Your task to perform on an android device: change your default location settings in chrome Image 0: 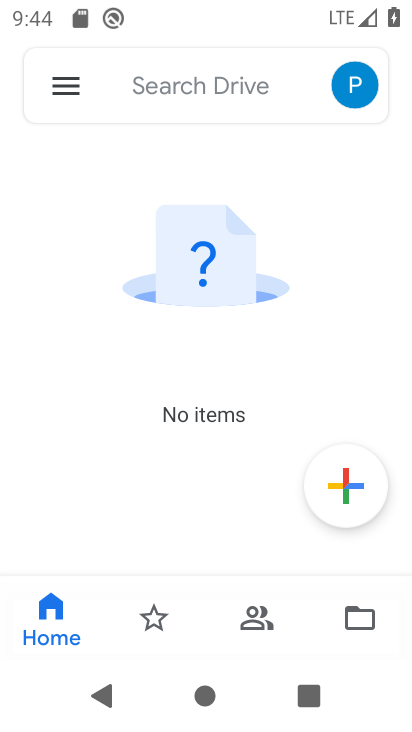
Step 0: press home button
Your task to perform on an android device: change your default location settings in chrome Image 1: 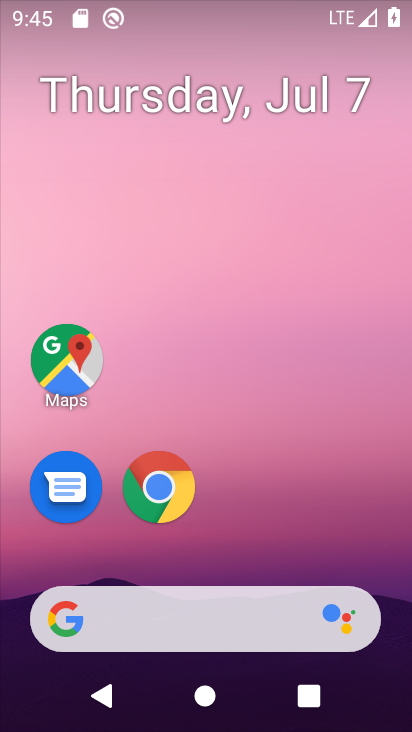
Step 1: drag from (327, 527) to (335, 159)
Your task to perform on an android device: change your default location settings in chrome Image 2: 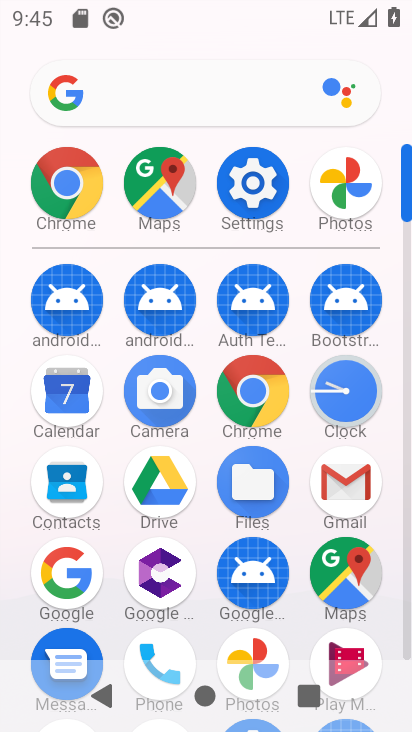
Step 2: click (259, 396)
Your task to perform on an android device: change your default location settings in chrome Image 3: 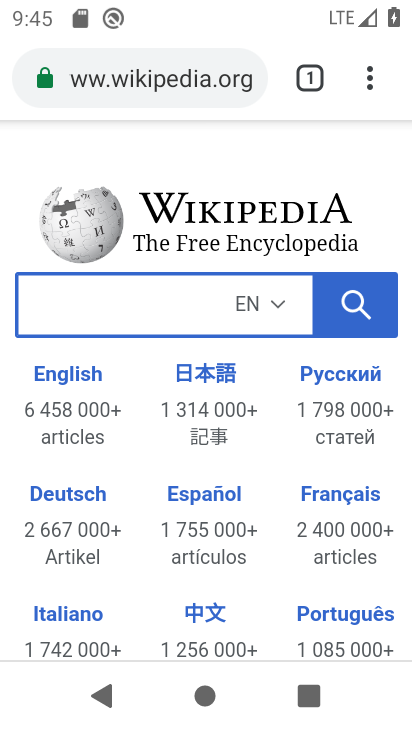
Step 3: click (369, 85)
Your task to perform on an android device: change your default location settings in chrome Image 4: 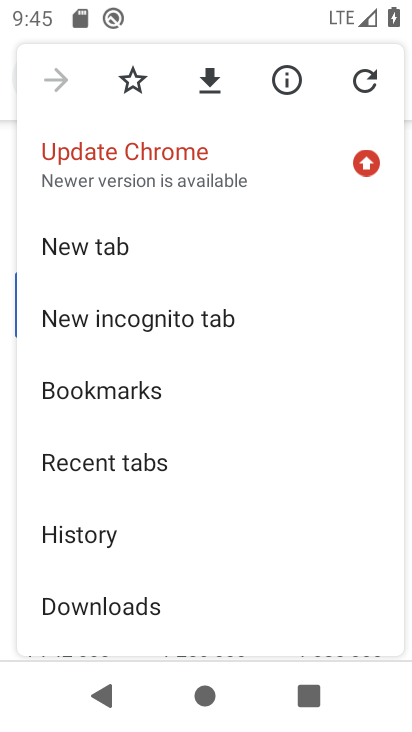
Step 4: drag from (302, 445) to (311, 304)
Your task to perform on an android device: change your default location settings in chrome Image 5: 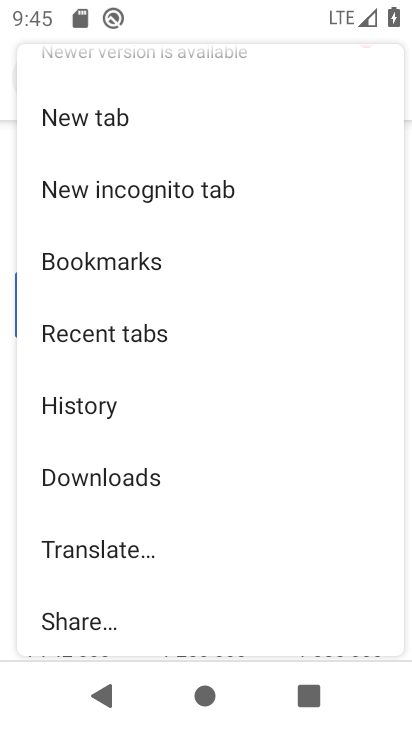
Step 5: drag from (317, 472) to (321, 345)
Your task to perform on an android device: change your default location settings in chrome Image 6: 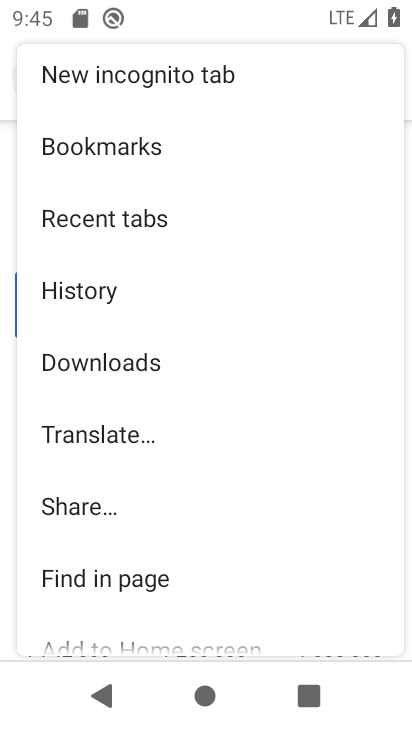
Step 6: drag from (314, 508) to (316, 361)
Your task to perform on an android device: change your default location settings in chrome Image 7: 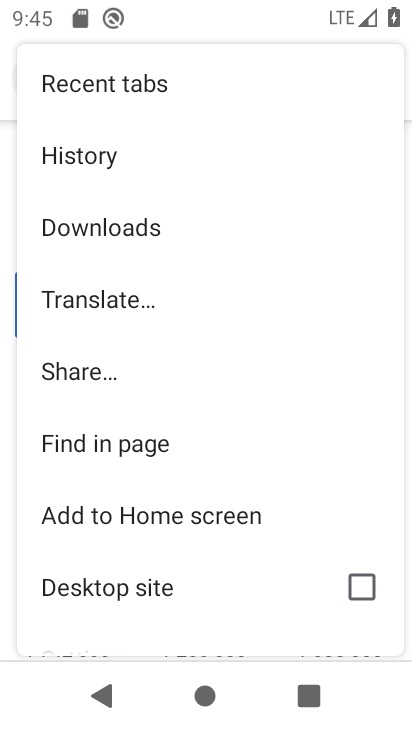
Step 7: drag from (278, 540) to (290, 393)
Your task to perform on an android device: change your default location settings in chrome Image 8: 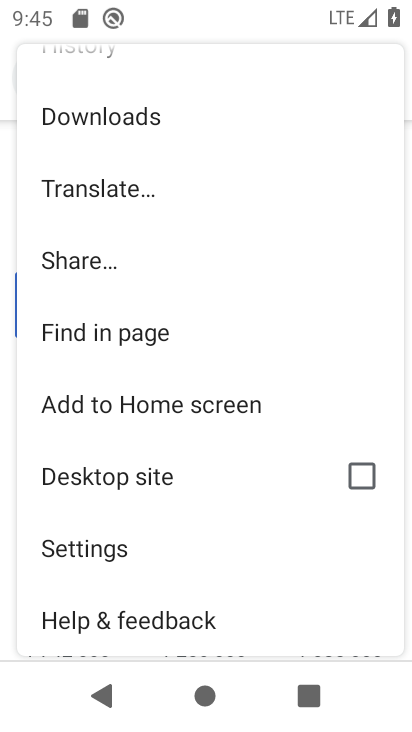
Step 8: click (216, 549)
Your task to perform on an android device: change your default location settings in chrome Image 9: 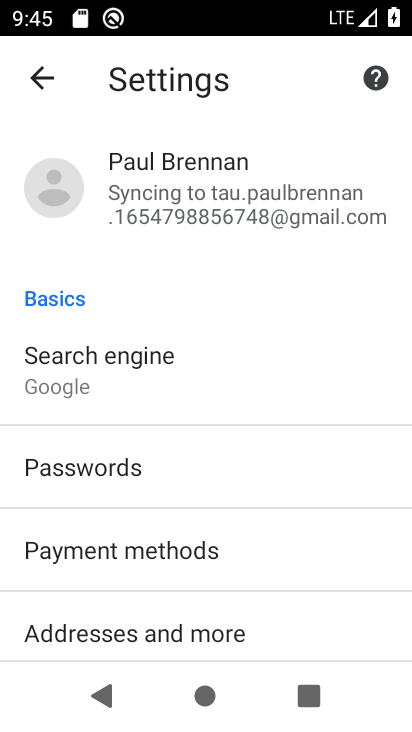
Step 9: drag from (321, 549) to (324, 433)
Your task to perform on an android device: change your default location settings in chrome Image 10: 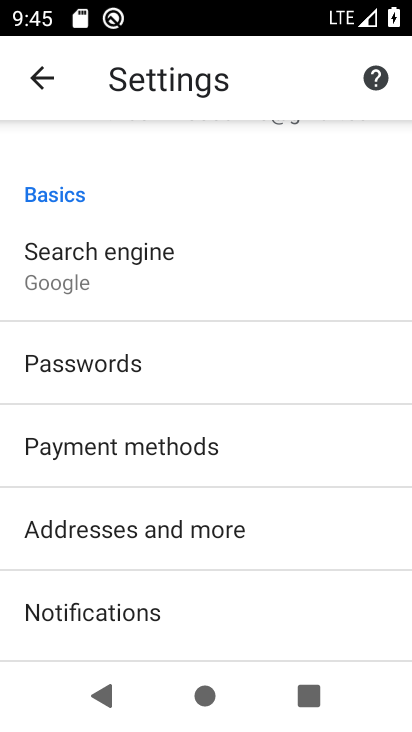
Step 10: drag from (334, 543) to (343, 364)
Your task to perform on an android device: change your default location settings in chrome Image 11: 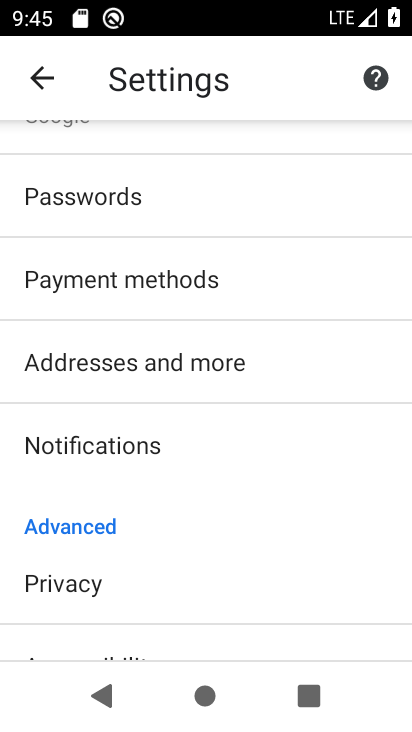
Step 11: drag from (344, 542) to (346, 371)
Your task to perform on an android device: change your default location settings in chrome Image 12: 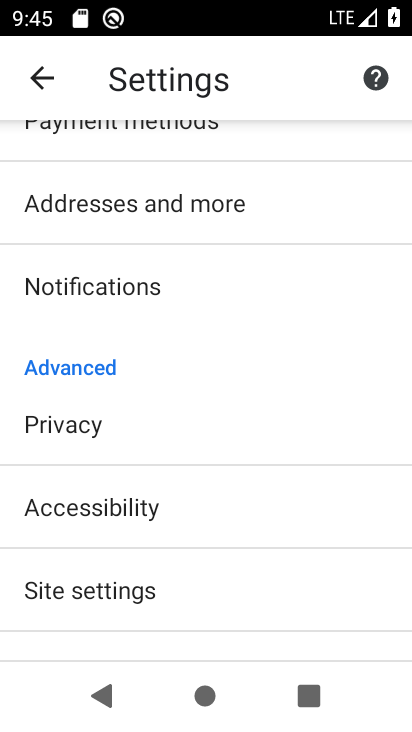
Step 12: drag from (298, 577) to (310, 446)
Your task to perform on an android device: change your default location settings in chrome Image 13: 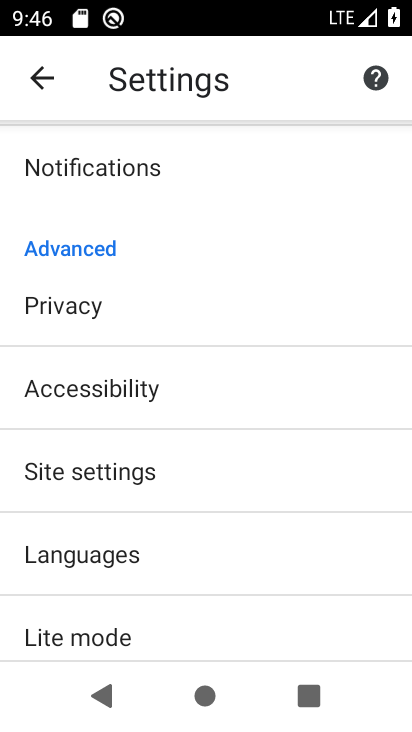
Step 13: click (270, 478)
Your task to perform on an android device: change your default location settings in chrome Image 14: 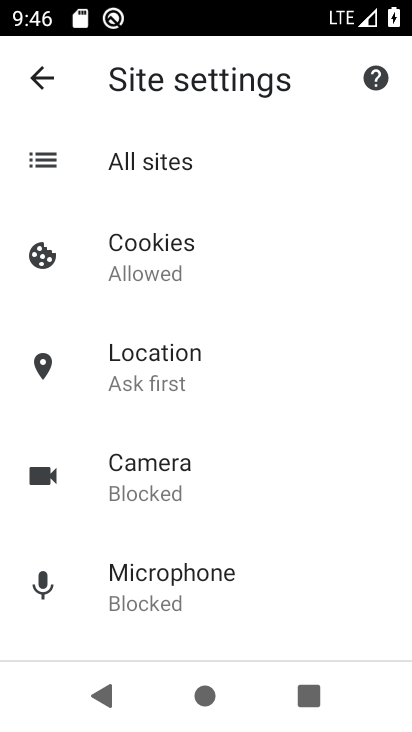
Step 14: click (243, 351)
Your task to perform on an android device: change your default location settings in chrome Image 15: 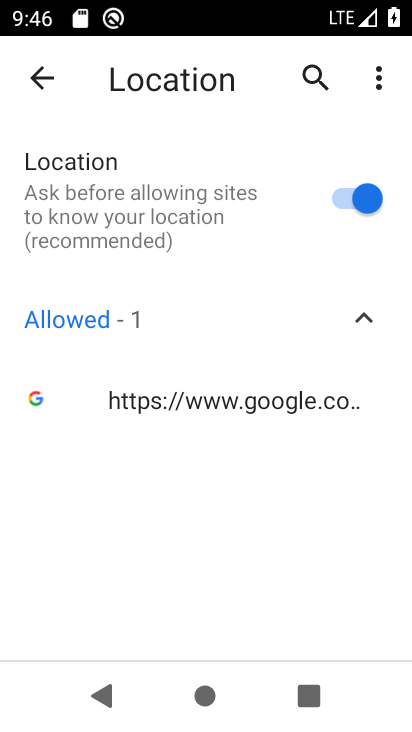
Step 15: click (362, 195)
Your task to perform on an android device: change your default location settings in chrome Image 16: 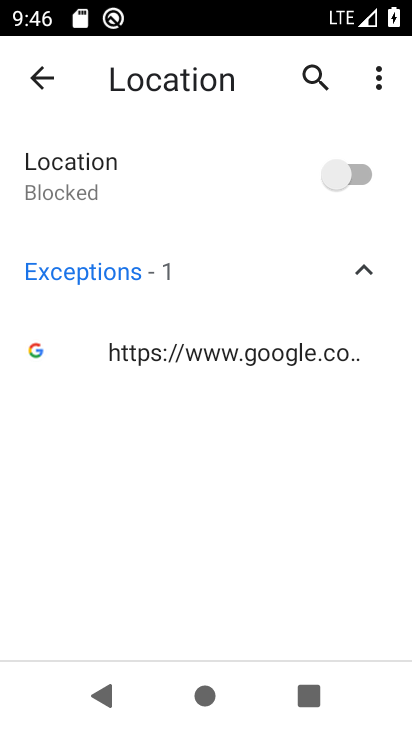
Step 16: task complete